Your task to perform on an android device: Go to eBay Image 0: 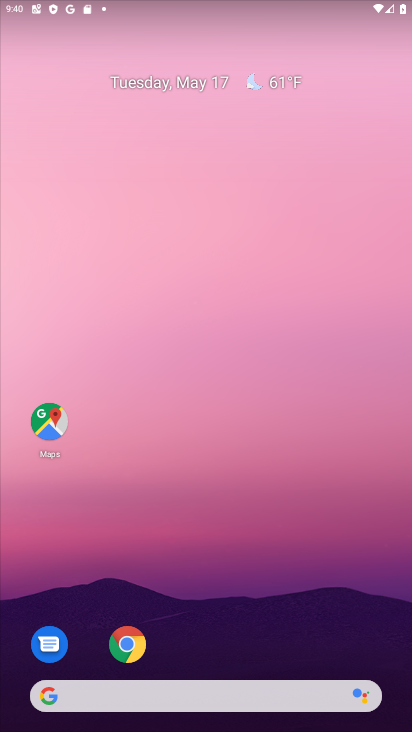
Step 0: click (130, 643)
Your task to perform on an android device: Go to eBay Image 1: 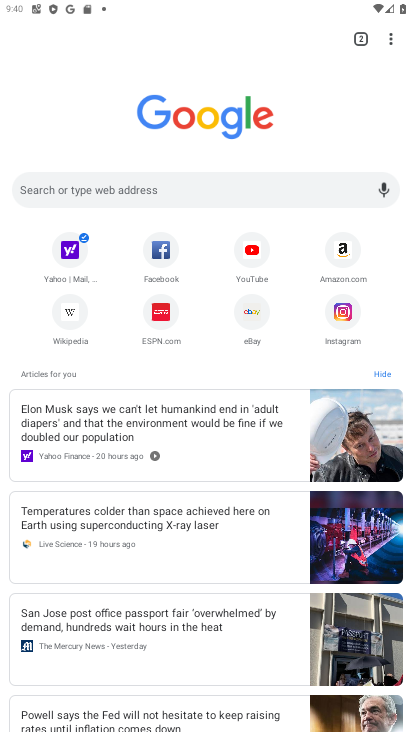
Step 1: click (251, 316)
Your task to perform on an android device: Go to eBay Image 2: 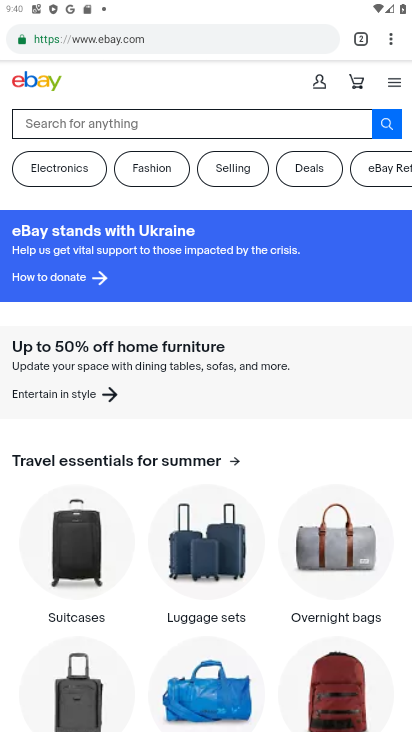
Step 2: task complete